Your task to perform on an android device: Do I have any events tomorrow? Image 0: 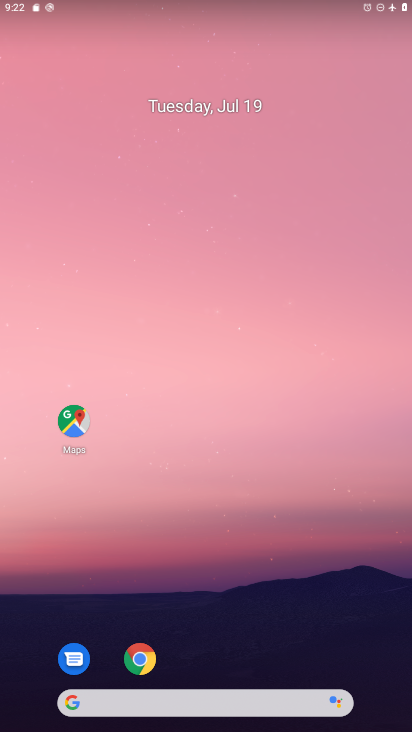
Step 0: drag from (213, 624) to (158, 190)
Your task to perform on an android device: Do I have any events tomorrow? Image 1: 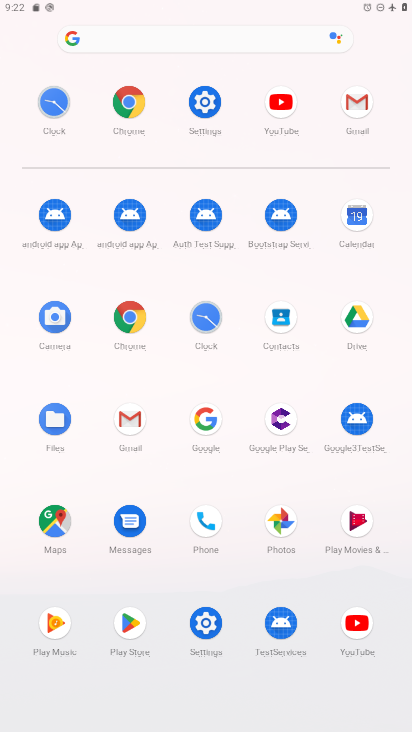
Step 1: click (123, 310)
Your task to perform on an android device: Do I have any events tomorrow? Image 2: 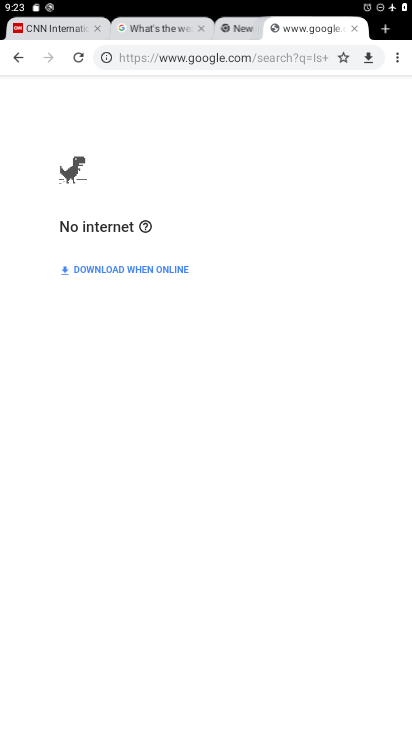
Step 2: click (352, 23)
Your task to perform on an android device: Do I have any events tomorrow? Image 3: 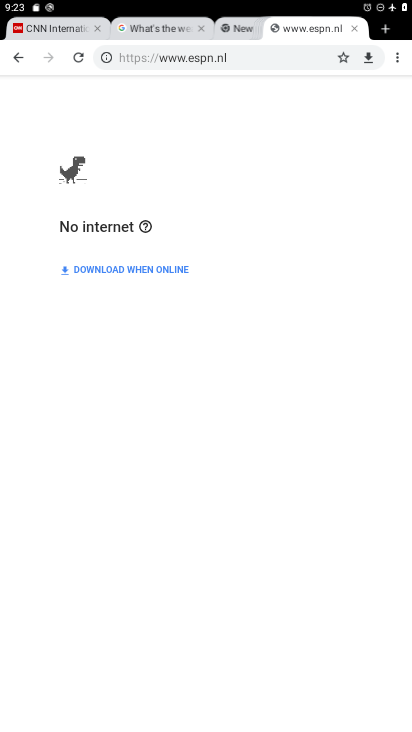
Step 3: click (386, 30)
Your task to perform on an android device: Do I have any events tomorrow? Image 4: 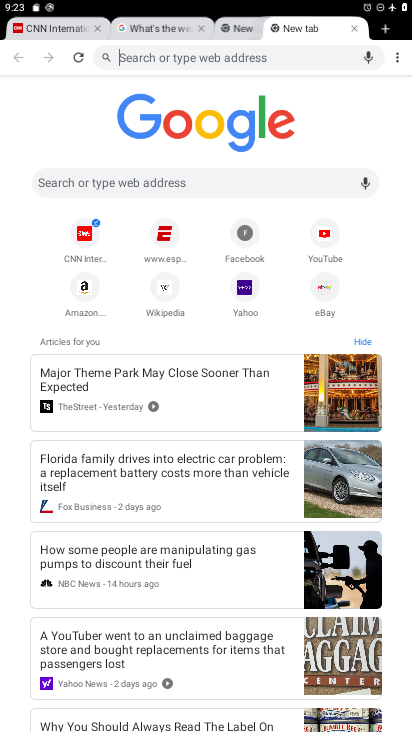
Step 4: click (198, 177)
Your task to perform on an android device: Do I have any events tomorrow? Image 5: 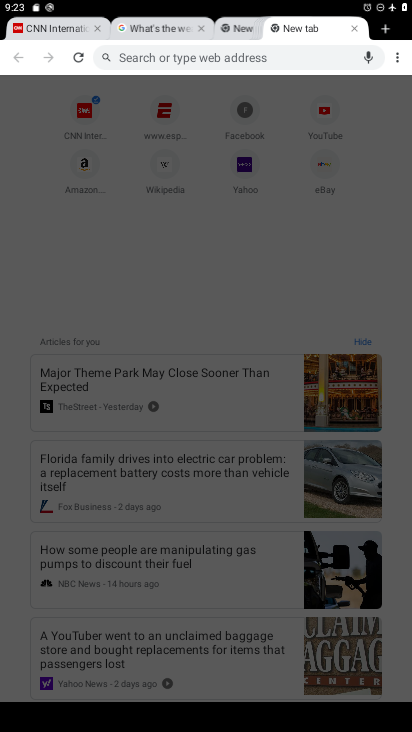
Step 5: type "Do I have any events tomorrow "
Your task to perform on an android device: Do I have any events tomorrow? Image 6: 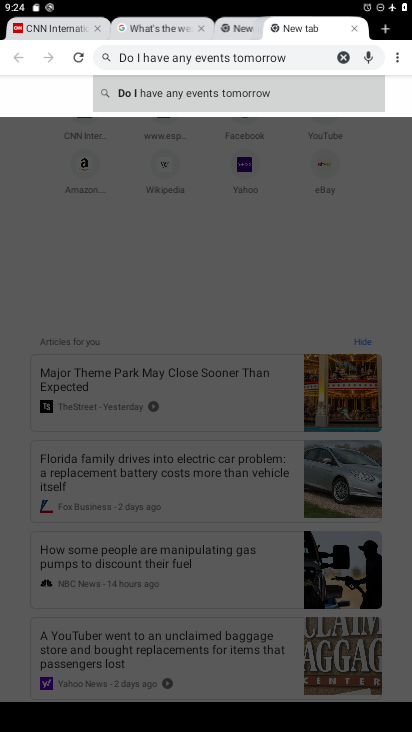
Step 6: click (190, 78)
Your task to perform on an android device: Do I have any events tomorrow? Image 7: 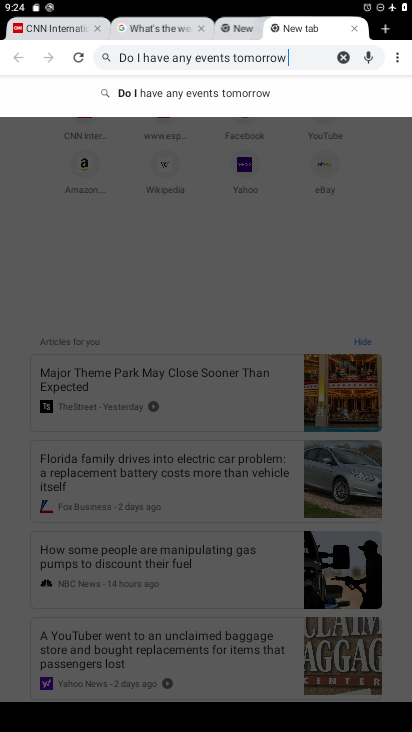
Step 7: task complete